Your task to perform on an android device: turn on notifications settings in the gmail app Image 0: 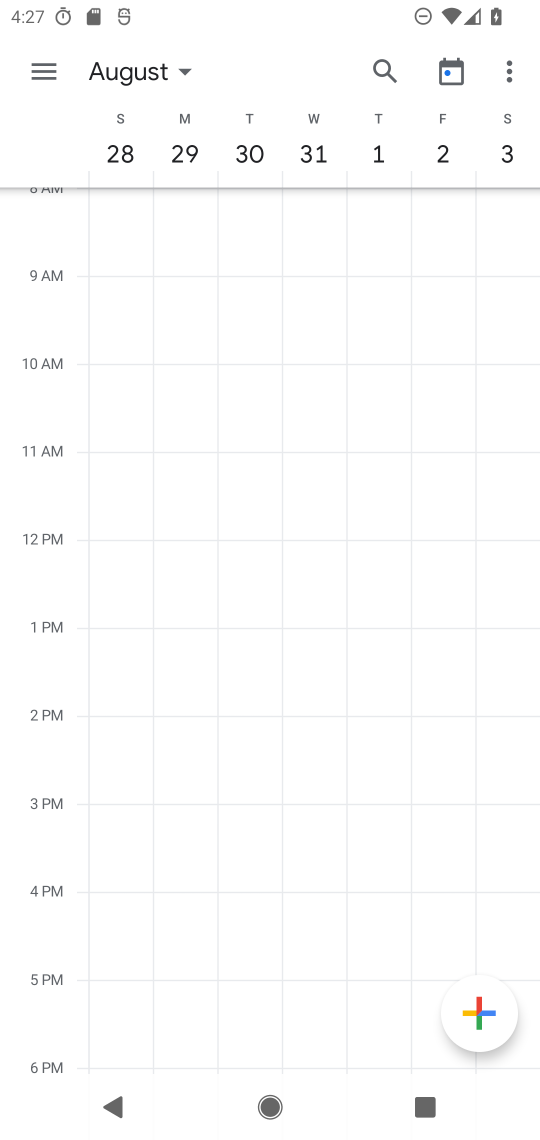
Step 0: press home button
Your task to perform on an android device: turn on notifications settings in the gmail app Image 1: 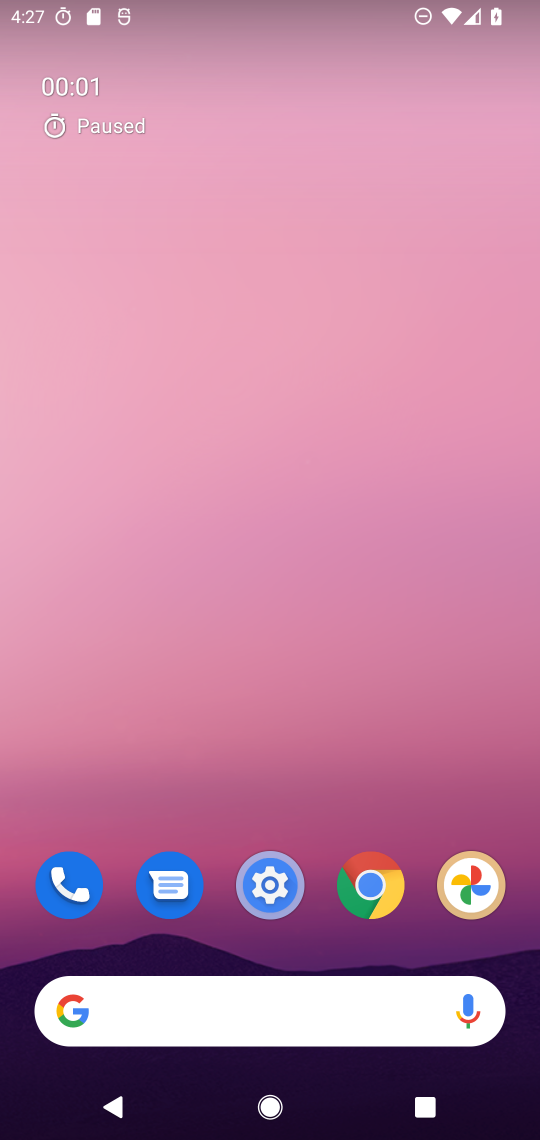
Step 1: drag from (220, 826) to (239, 331)
Your task to perform on an android device: turn on notifications settings in the gmail app Image 2: 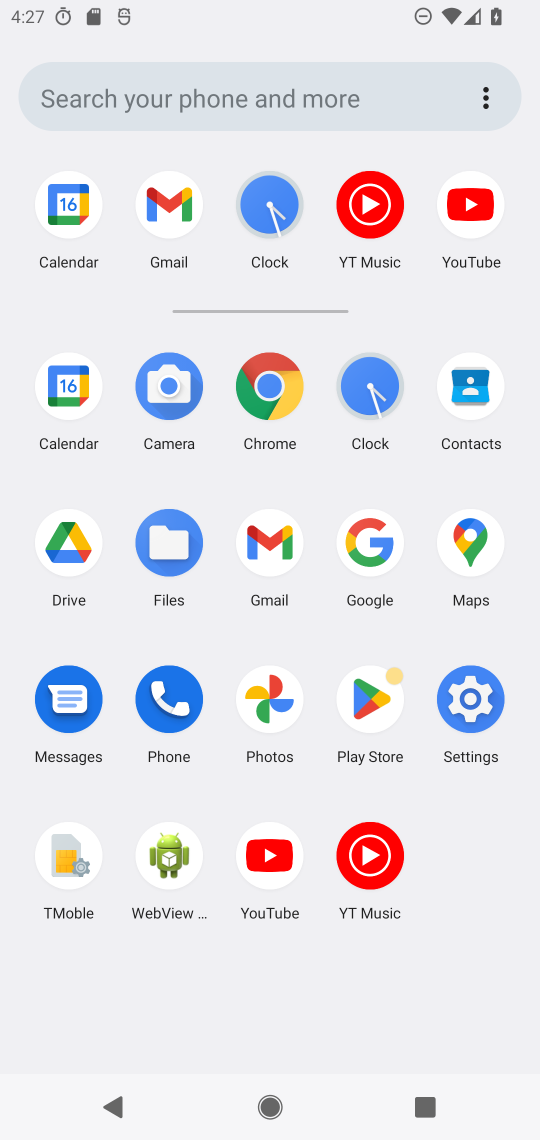
Step 2: click (473, 688)
Your task to perform on an android device: turn on notifications settings in the gmail app Image 3: 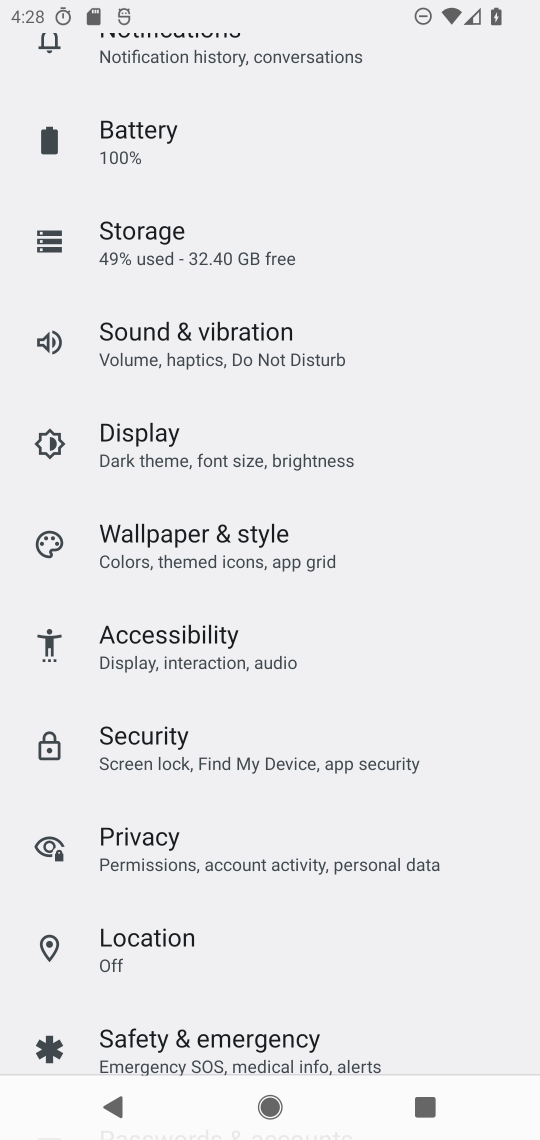
Step 3: drag from (221, 224) to (169, 940)
Your task to perform on an android device: turn on notifications settings in the gmail app Image 4: 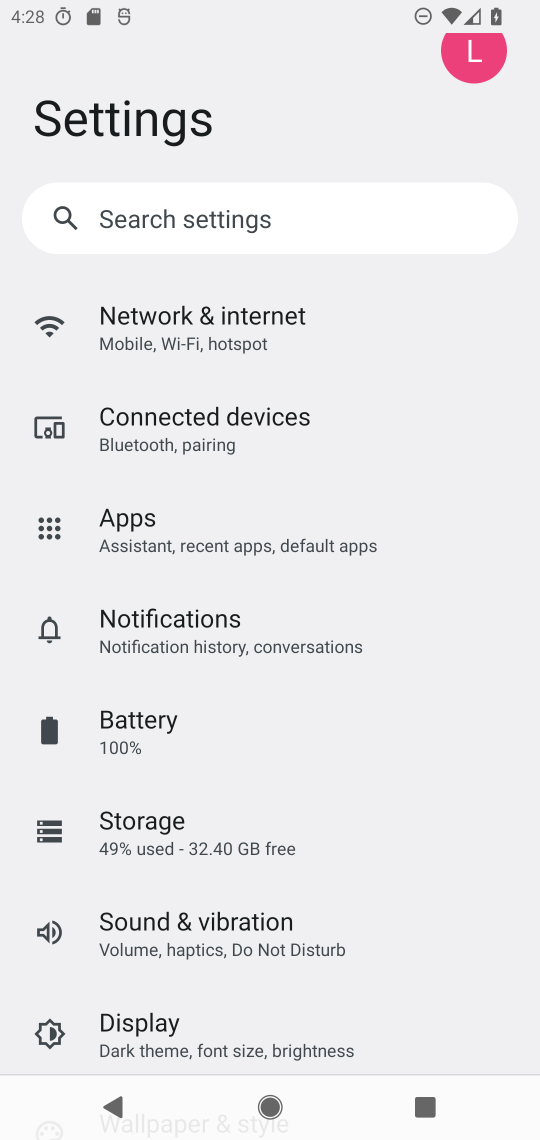
Step 4: click (205, 606)
Your task to perform on an android device: turn on notifications settings in the gmail app Image 5: 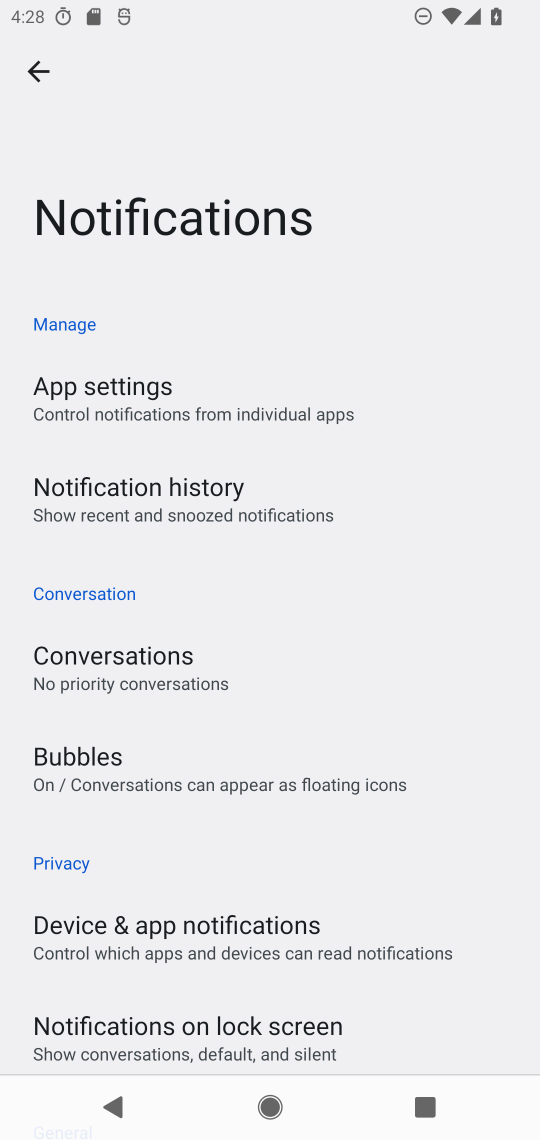
Step 5: drag from (192, 857) to (218, 639)
Your task to perform on an android device: turn on notifications settings in the gmail app Image 6: 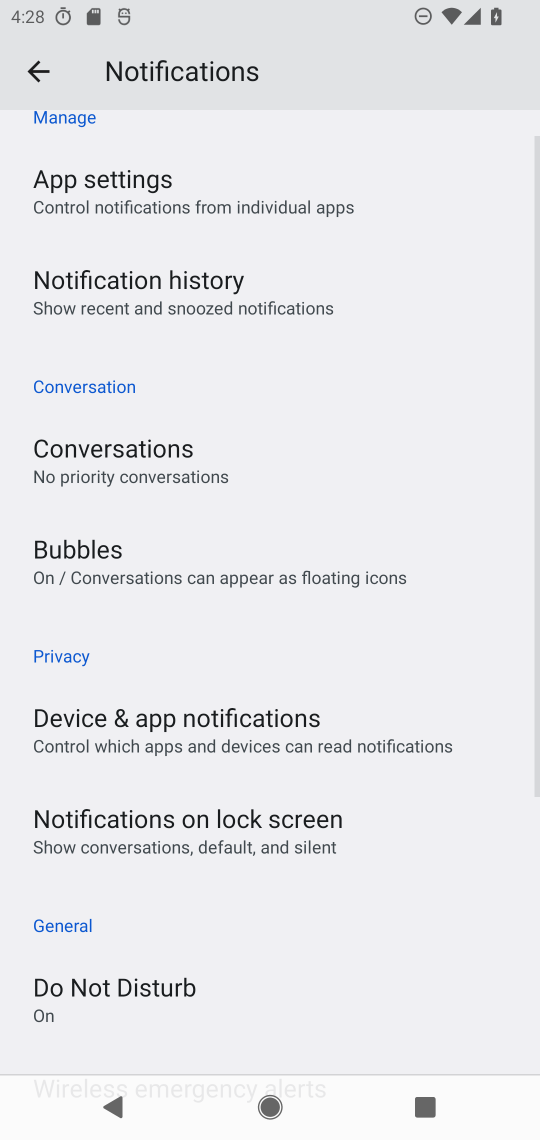
Step 6: press home button
Your task to perform on an android device: turn on notifications settings in the gmail app Image 7: 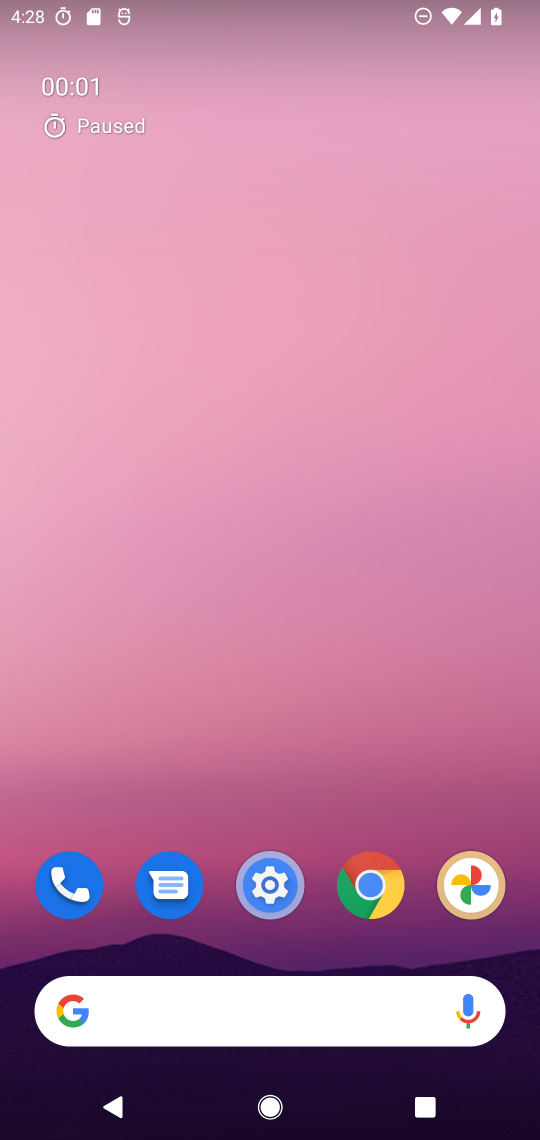
Step 7: drag from (186, 922) to (251, 247)
Your task to perform on an android device: turn on notifications settings in the gmail app Image 8: 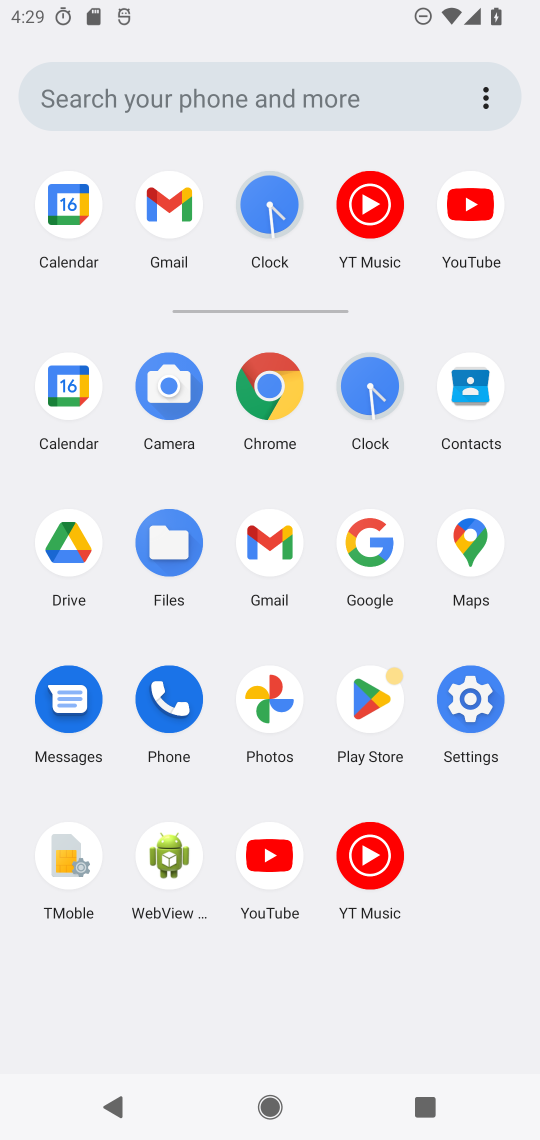
Step 8: click (475, 686)
Your task to perform on an android device: turn on notifications settings in the gmail app Image 9: 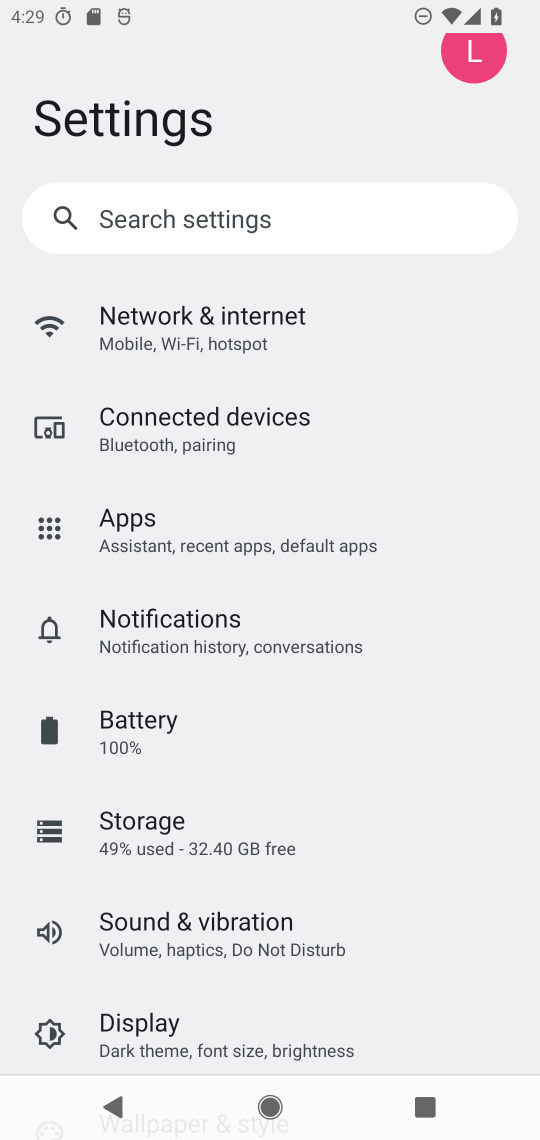
Step 9: click (220, 632)
Your task to perform on an android device: turn on notifications settings in the gmail app Image 10: 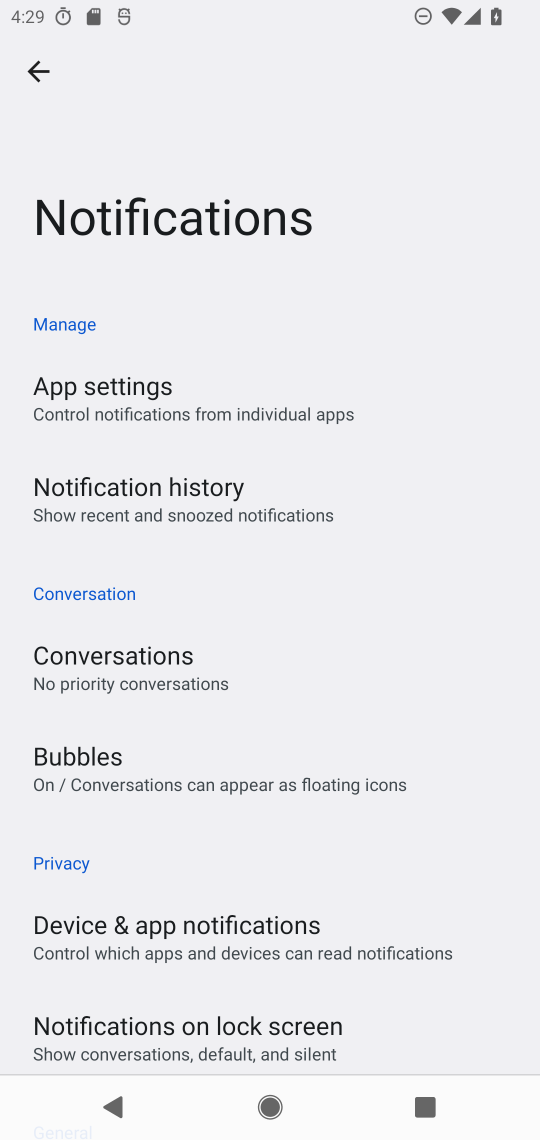
Step 10: drag from (183, 884) to (208, 1040)
Your task to perform on an android device: turn on notifications settings in the gmail app Image 11: 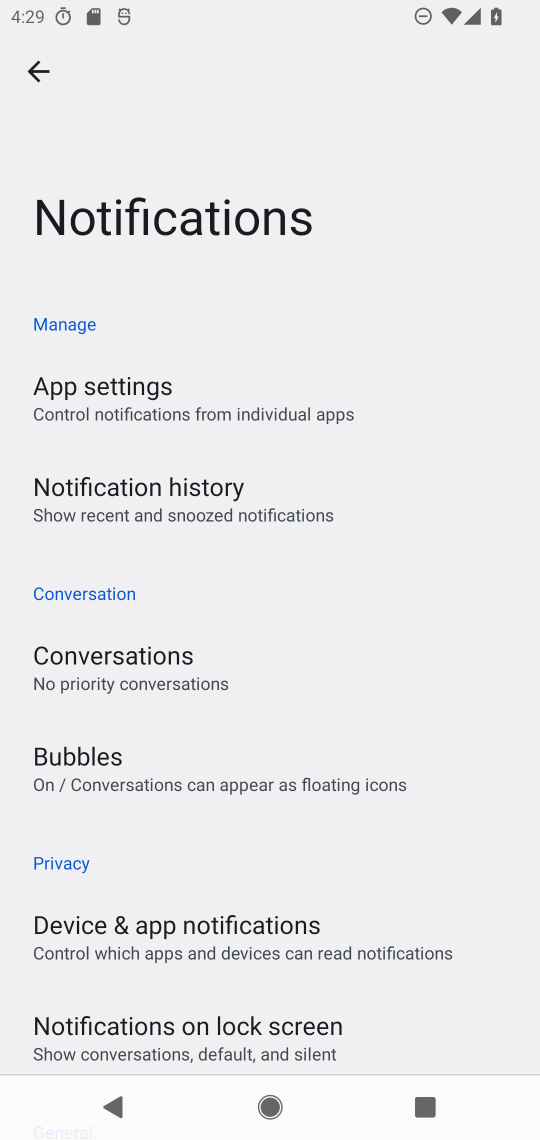
Step 11: click (118, 383)
Your task to perform on an android device: turn on notifications settings in the gmail app Image 12: 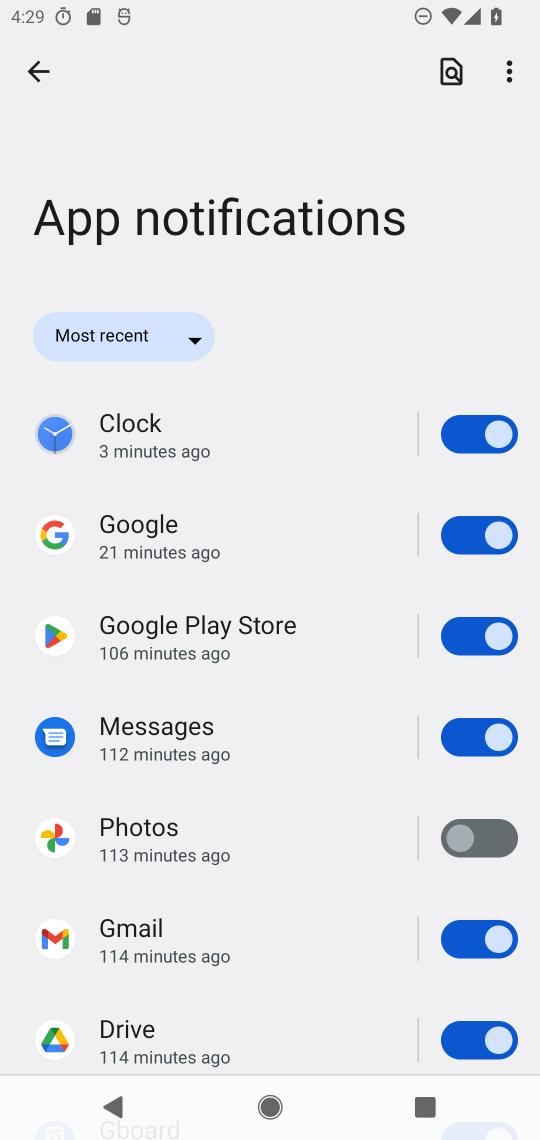
Step 12: click (472, 827)
Your task to perform on an android device: turn on notifications settings in the gmail app Image 13: 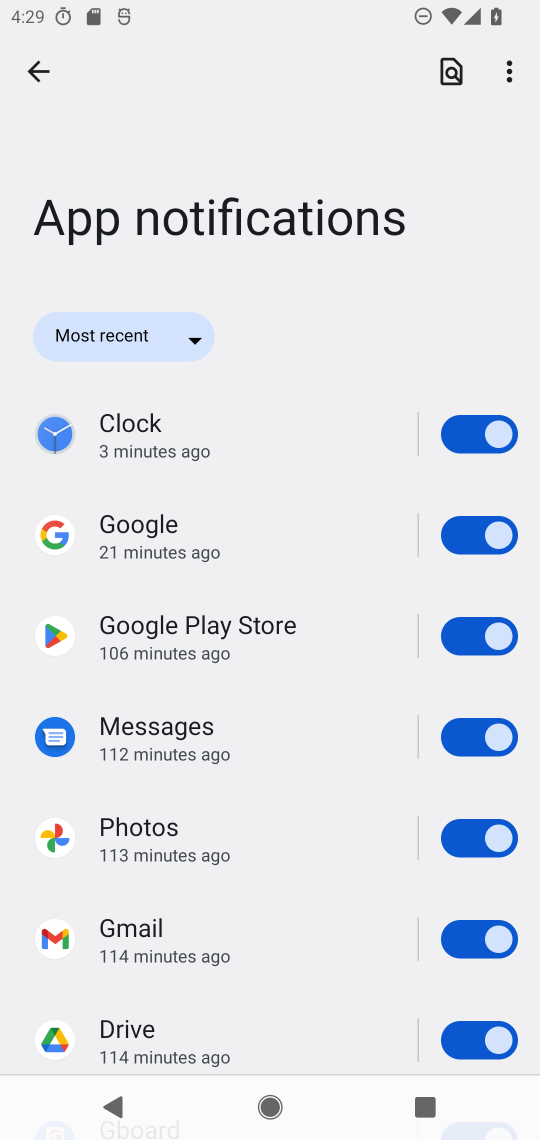
Step 13: task complete